Your task to perform on an android device: delete browsing data in the chrome app Image 0: 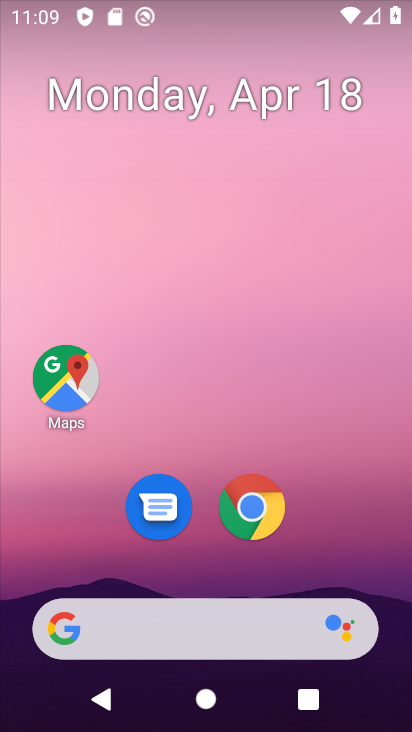
Step 0: drag from (360, 534) to (359, 98)
Your task to perform on an android device: delete browsing data in the chrome app Image 1: 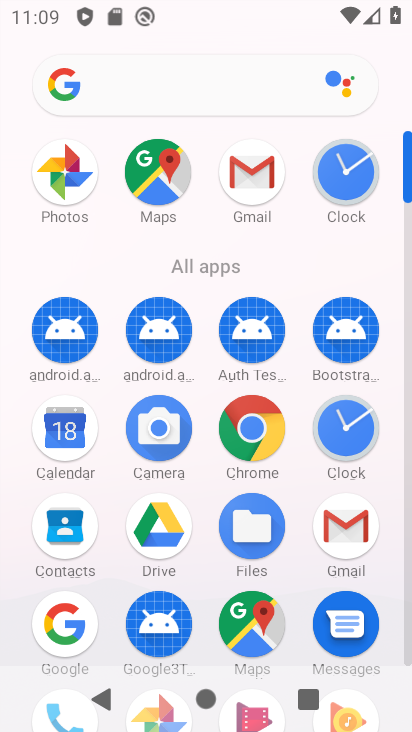
Step 1: click (259, 426)
Your task to perform on an android device: delete browsing data in the chrome app Image 2: 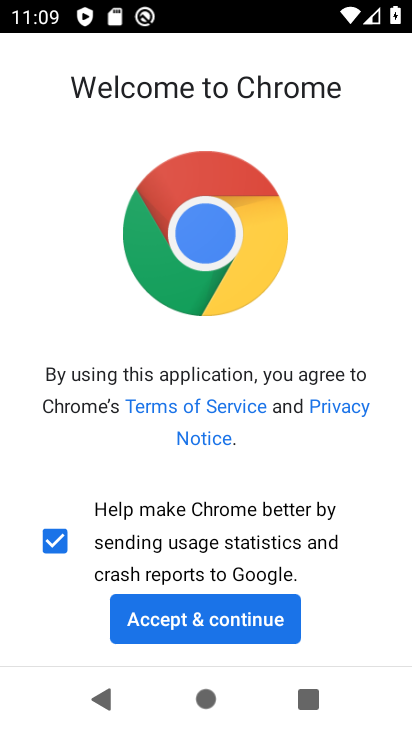
Step 2: click (197, 623)
Your task to perform on an android device: delete browsing data in the chrome app Image 3: 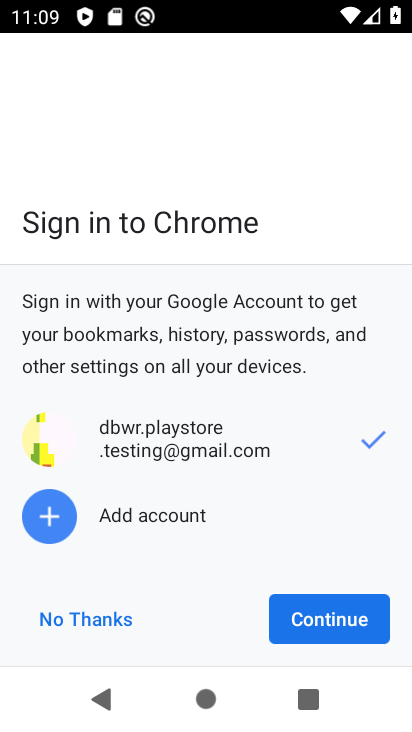
Step 3: click (316, 624)
Your task to perform on an android device: delete browsing data in the chrome app Image 4: 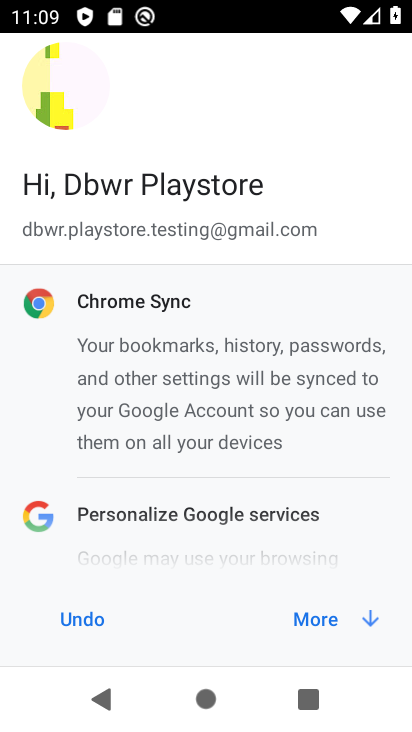
Step 4: click (322, 622)
Your task to perform on an android device: delete browsing data in the chrome app Image 5: 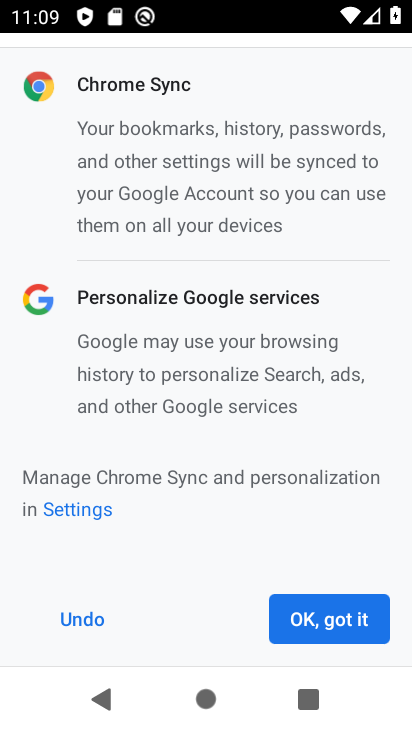
Step 5: click (321, 623)
Your task to perform on an android device: delete browsing data in the chrome app Image 6: 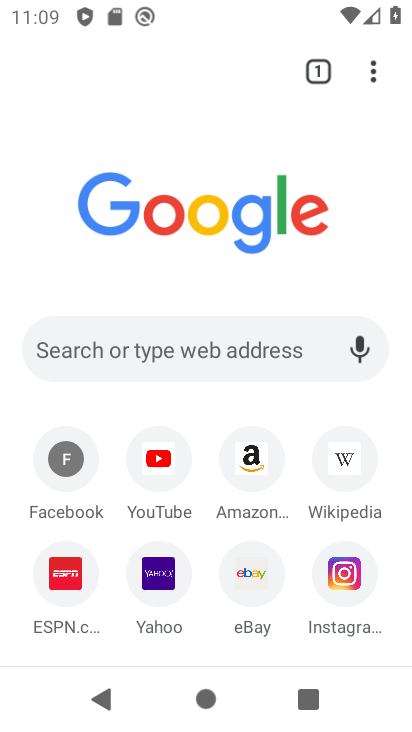
Step 6: task complete